Your task to perform on an android device: Open the map Image 0: 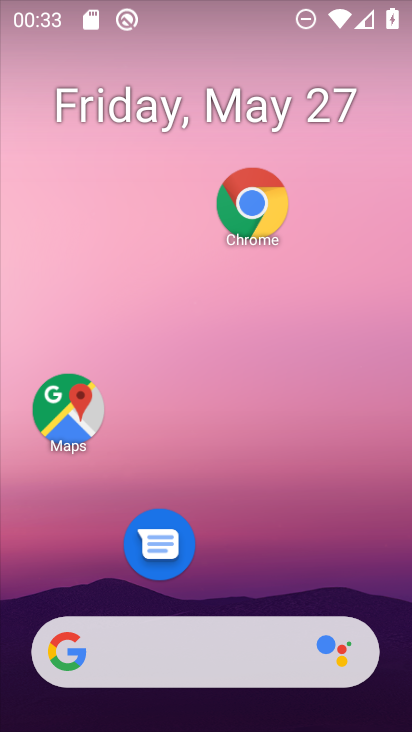
Step 0: drag from (202, 596) to (162, 101)
Your task to perform on an android device: Open the map Image 1: 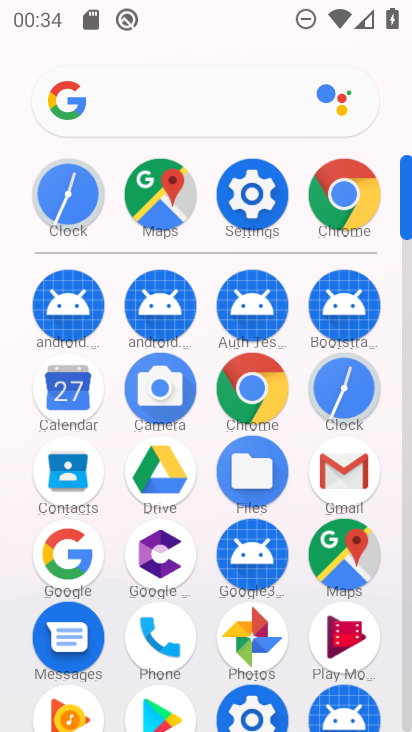
Step 1: drag from (129, 554) to (262, 81)
Your task to perform on an android device: Open the map Image 2: 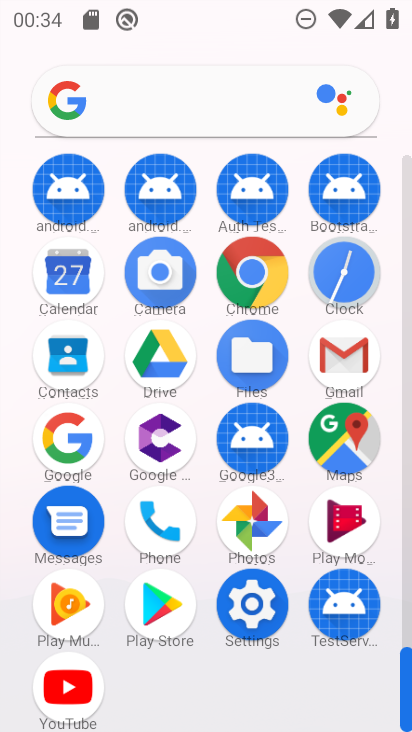
Step 2: click (326, 440)
Your task to perform on an android device: Open the map Image 3: 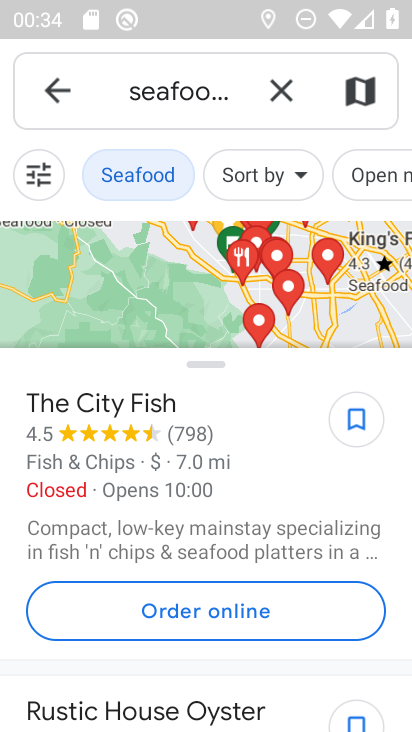
Step 3: task complete